Your task to perform on an android device: choose inbox layout in the gmail app Image 0: 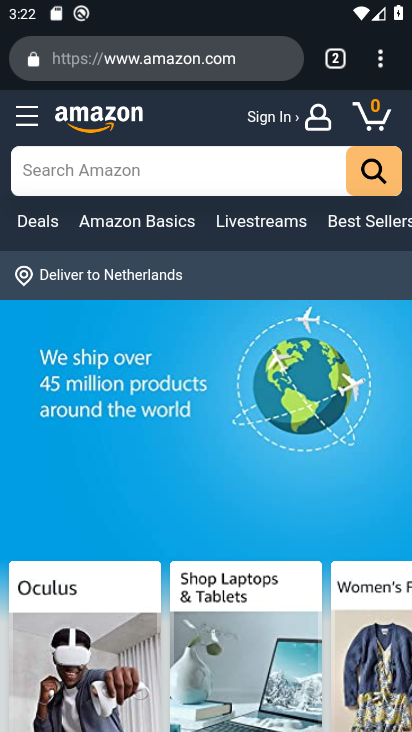
Step 0: click (179, 599)
Your task to perform on an android device: choose inbox layout in the gmail app Image 1: 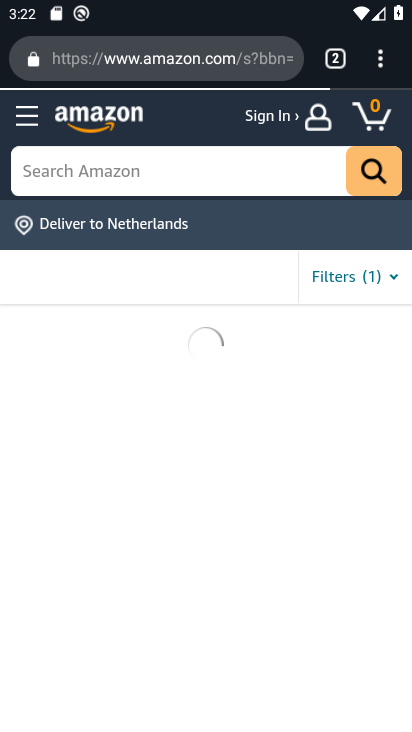
Step 1: click (386, 57)
Your task to perform on an android device: choose inbox layout in the gmail app Image 2: 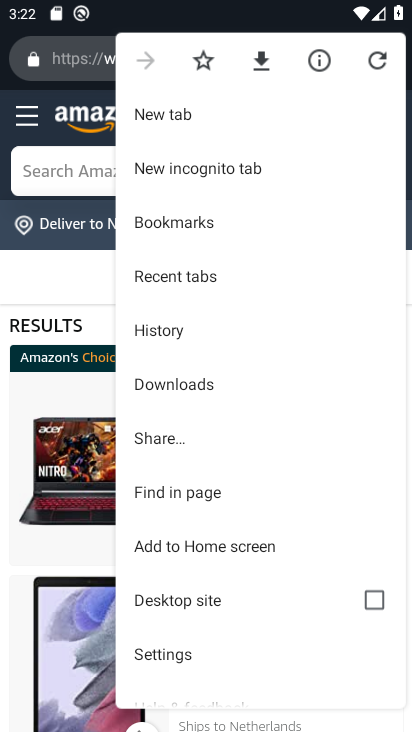
Step 2: press home button
Your task to perform on an android device: choose inbox layout in the gmail app Image 3: 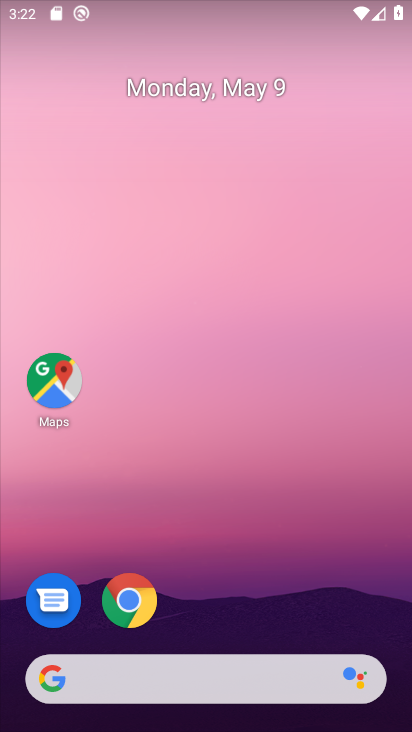
Step 3: drag from (189, 610) to (228, 99)
Your task to perform on an android device: choose inbox layout in the gmail app Image 4: 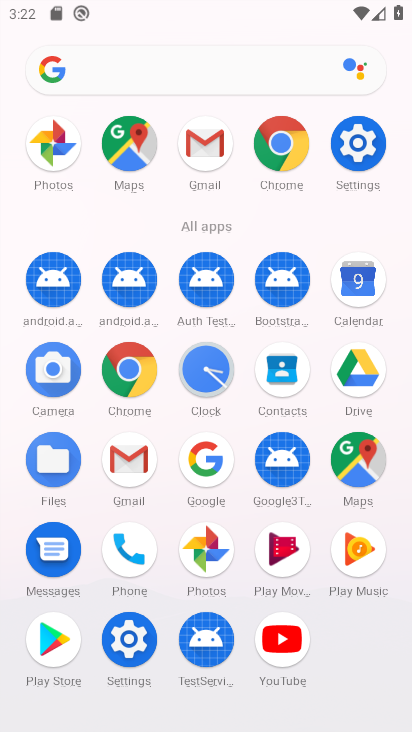
Step 4: click (138, 469)
Your task to perform on an android device: choose inbox layout in the gmail app Image 5: 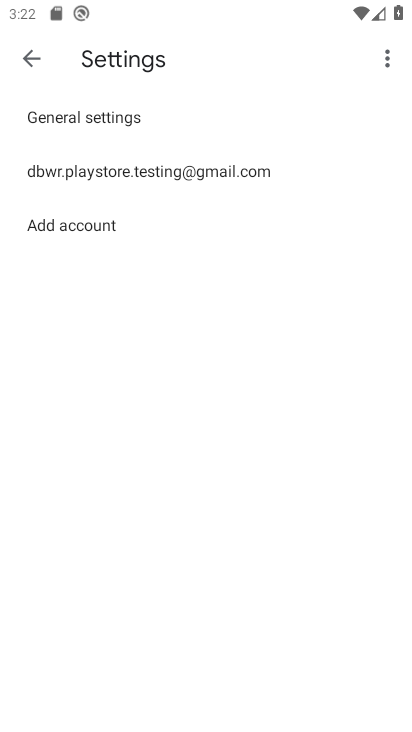
Step 5: click (187, 173)
Your task to perform on an android device: choose inbox layout in the gmail app Image 6: 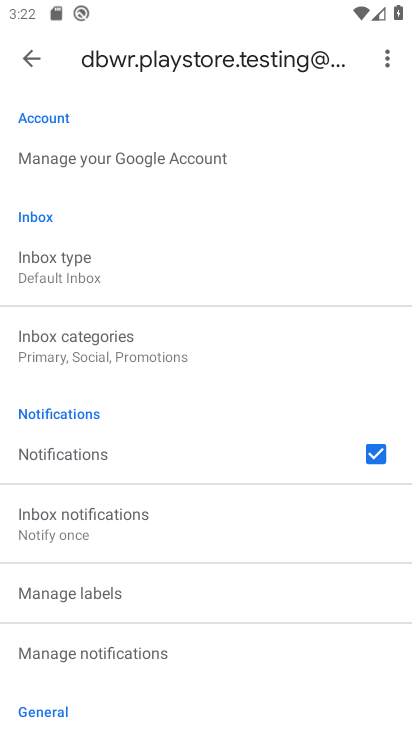
Step 6: click (125, 264)
Your task to perform on an android device: choose inbox layout in the gmail app Image 7: 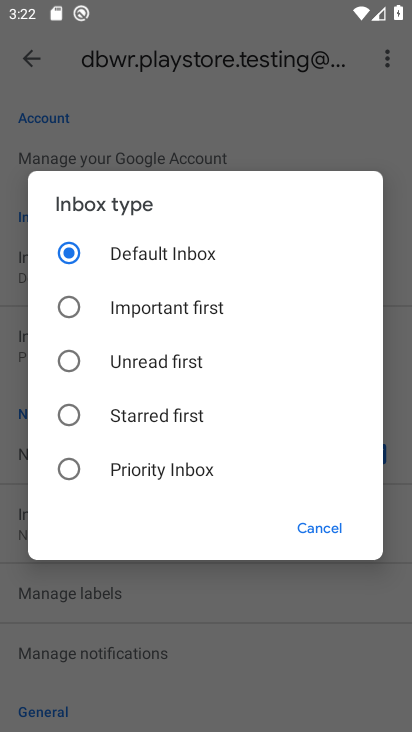
Step 7: click (92, 311)
Your task to perform on an android device: choose inbox layout in the gmail app Image 8: 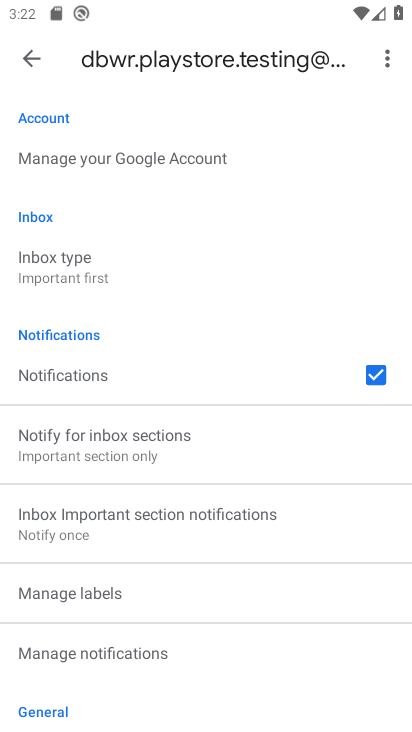
Step 8: task complete